Your task to perform on an android device: Go to Google maps Image 0: 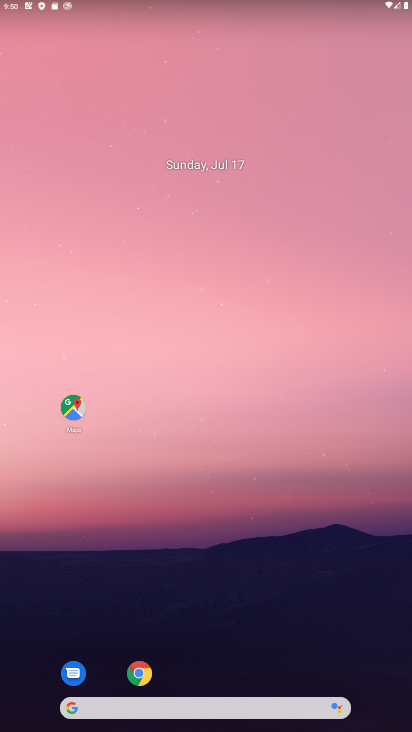
Step 0: click (73, 407)
Your task to perform on an android device: Go to Google maps Image 1: 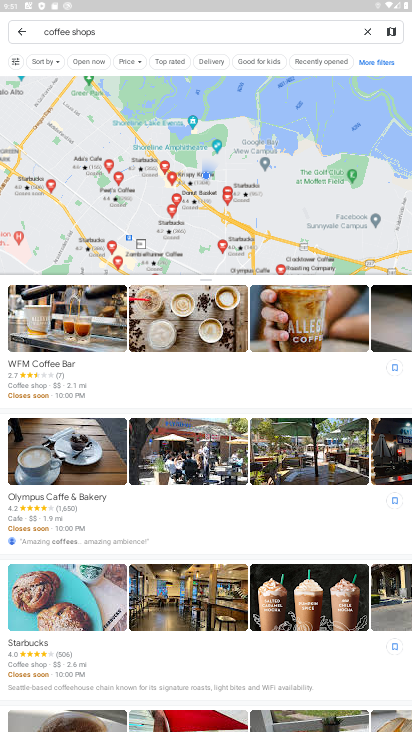
Step 1: task complete